Your task to perform on an android device: change text size in settings app Image 0: 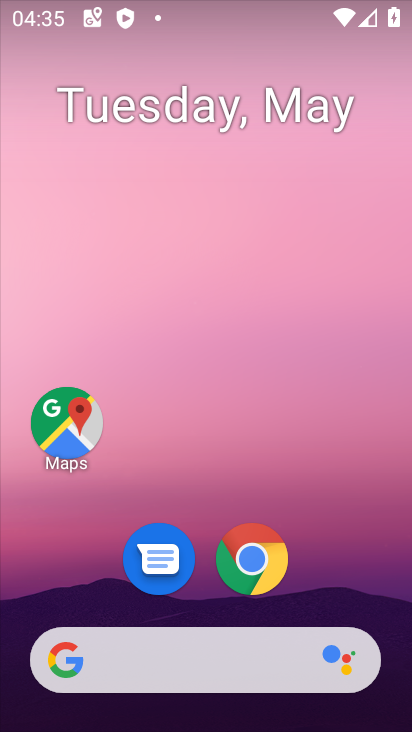
Step 0: drag from (334, 544) to (135, 108)
Your task to perform on an android device: change text size in settings app Image 1: 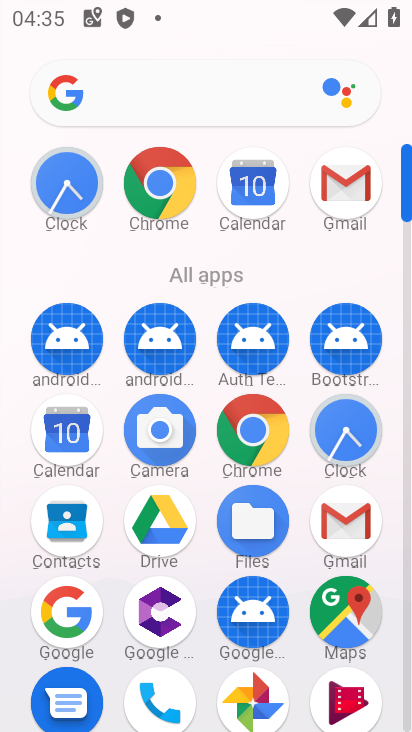
Step 1: drag from (281, 273) to (273, 50)
Your task to perform on an android device: change text size in settings app Image 2: 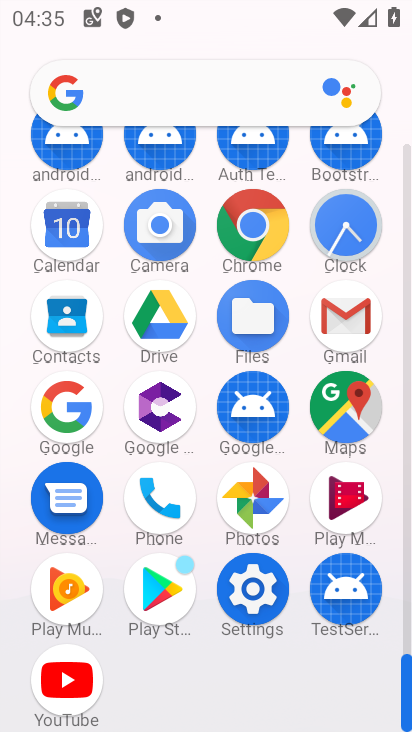
Step 2: click (267, 588)
Your task to perform on an android device: change text size in settings app Image 3: 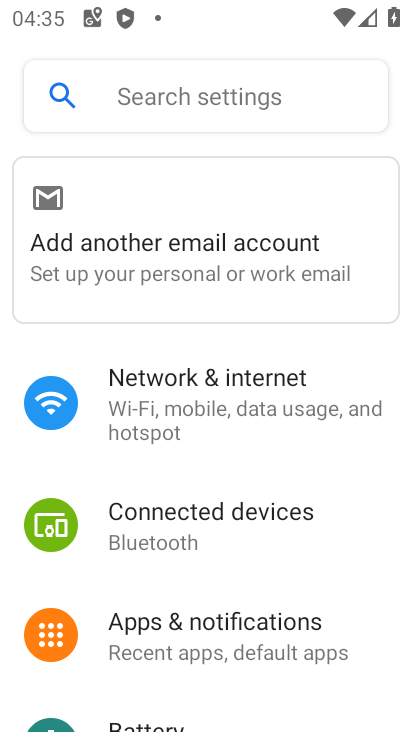
Step 3: drag from (198, 447) to (210, 236)
Your task to perform on an android device: change text size in settings app Image 4: 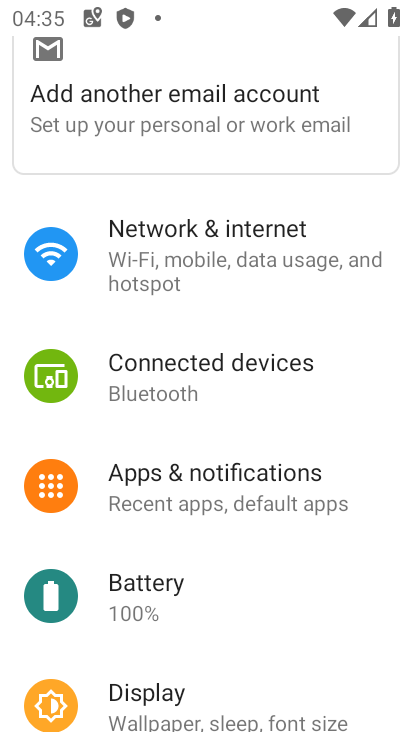
Step 4: click (203, 719)
Your task to perform on an android device: change text size in settings app Image 5: 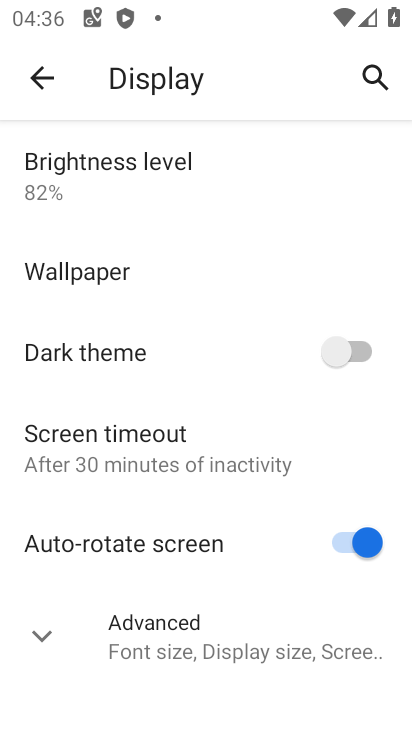
Step 5: click (161, 624)
Your task to perform on an android device: change text size in settings app Image 6: 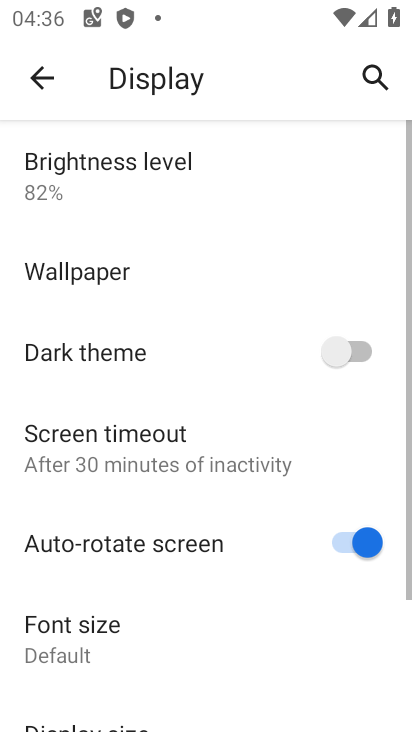
Step 6: drag from (140, 674) to (142, 393)
Your task to perform on an android device: change text size in settings app Image 7: 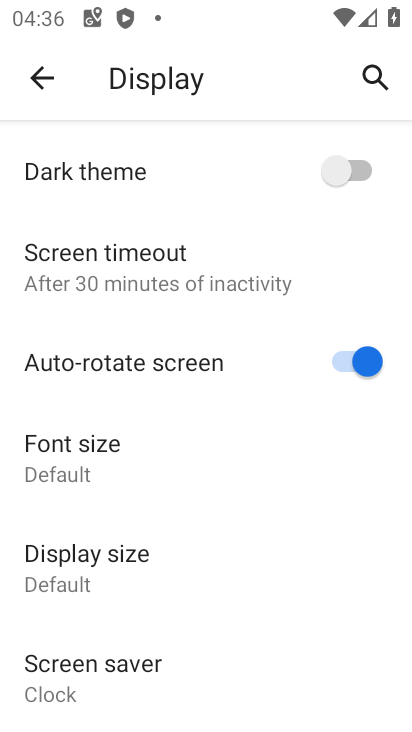
Step 7: click (102, 469)
Your task to perform on an android device: change text size in settings app Image 8: 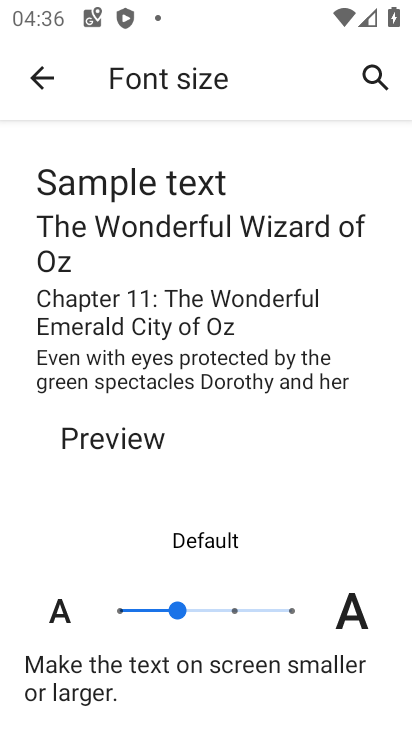
Step 8: task complete